Your task to perform on an android device: What is the news today? Image 0: 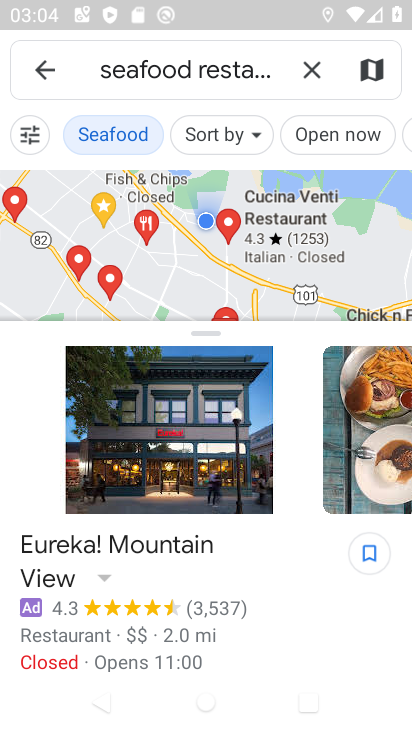
Step 0: press home button
Your task to perform on an android device: What is the news today? Image 1: 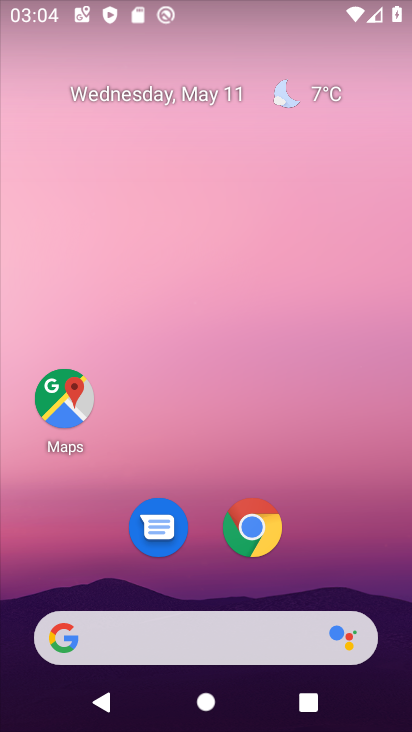
Step 1: click (100, 634)
Your task to perform on an android device: What is the news today? Image 2: 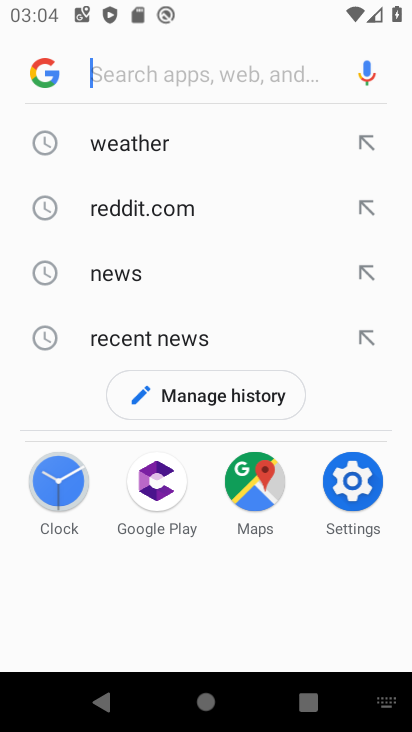
Step 2: click (100, 64)
Your task to perform on an android device: What is the news today? Image 3: 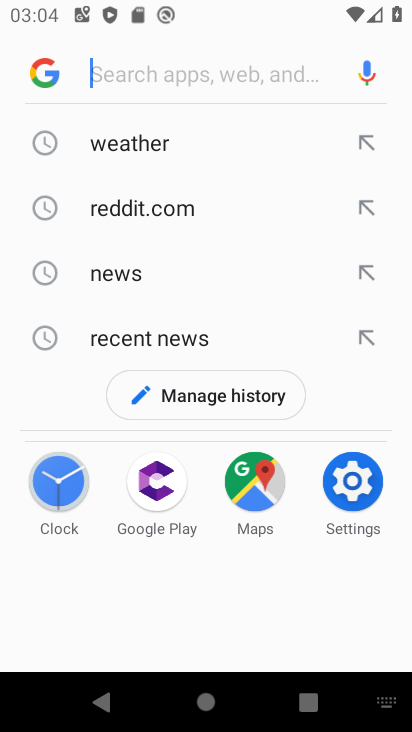
Step 3: type "today's news "
Your task to perform on an android device: What is the news today? Image 4: 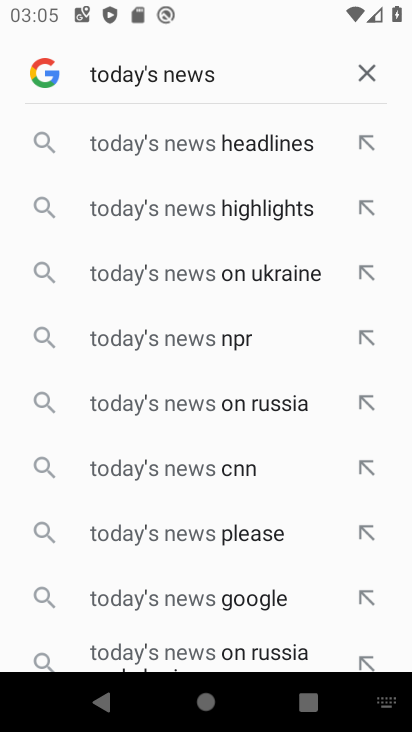
Step 4: click (175, 606)
Your task to perform on an android device: What is the news today? Image 5: 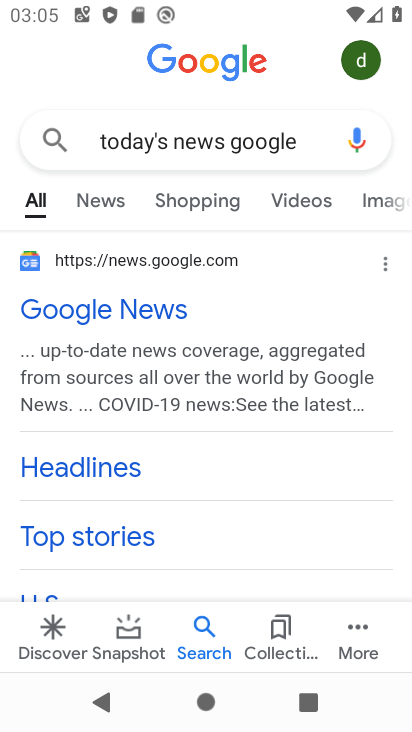
Step 5: click (108, 204)
Your task to perform on an android device: What is the news today? Image 6: 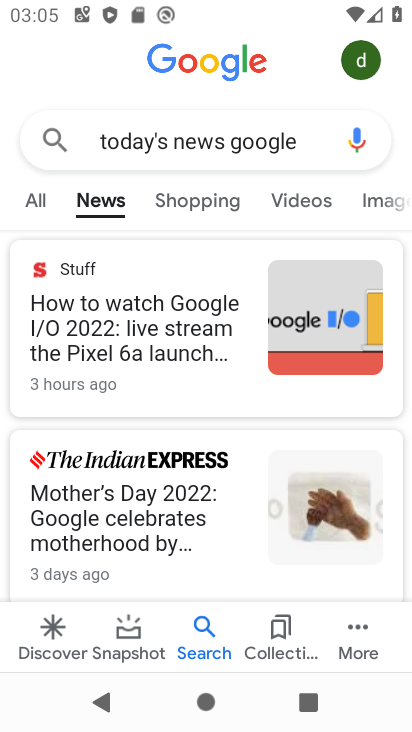
Step 6: click (120, 349)
Your task to perform on an android device: What is the news today? Image 7: 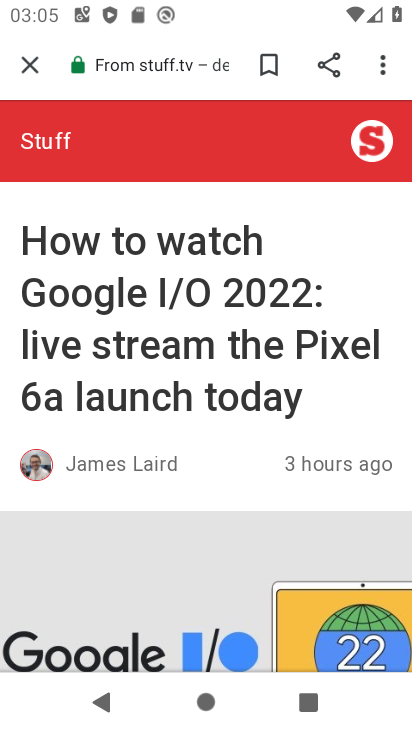
Step 7: task complete